Your task to perform on an android device: Open Google Maps Image 0: 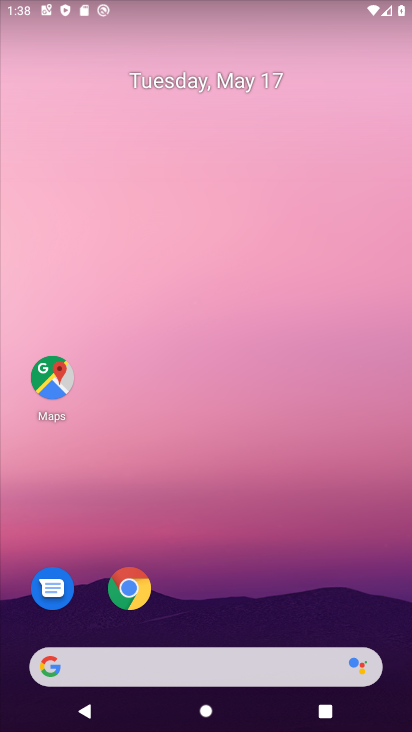
Step 0: click (74, 383)
Your task to perform on an android device: Open Google Maps Image 1: 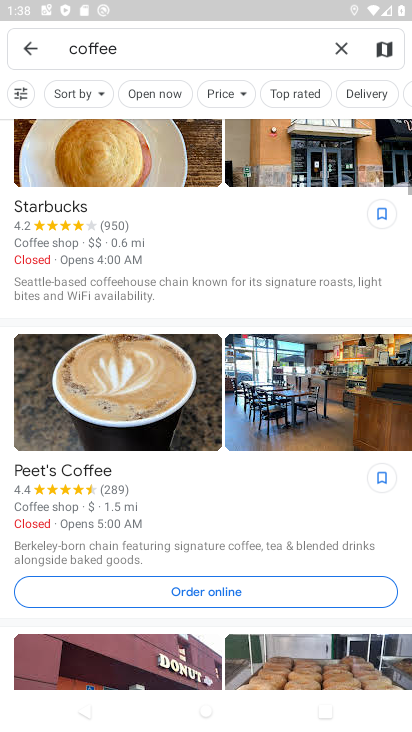
Step 1: task complete